Your task to perform on an android device: open app "Microsoft Authenticator" (install if not already installed) and enter user name: "Cornell@yahoo.com" and password: "bothersome" Image 0: 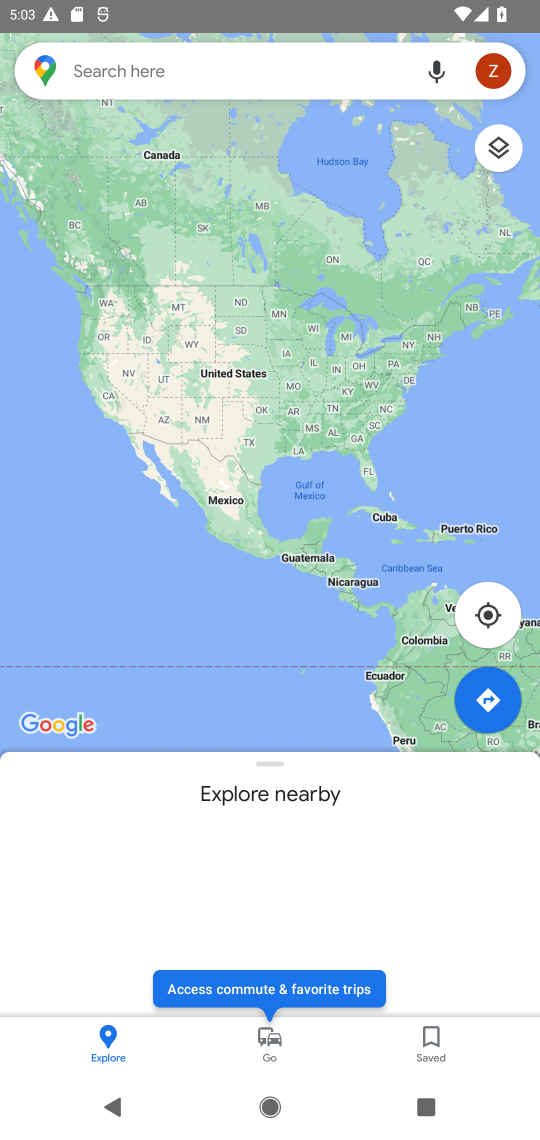
Step 0: press home button
Your task to perform on an android device: open app "Microsoft Authenticator" (install if not already installed) and enter user name: "Cornell@yahoo.com" and password: "bothersome" Image 1: 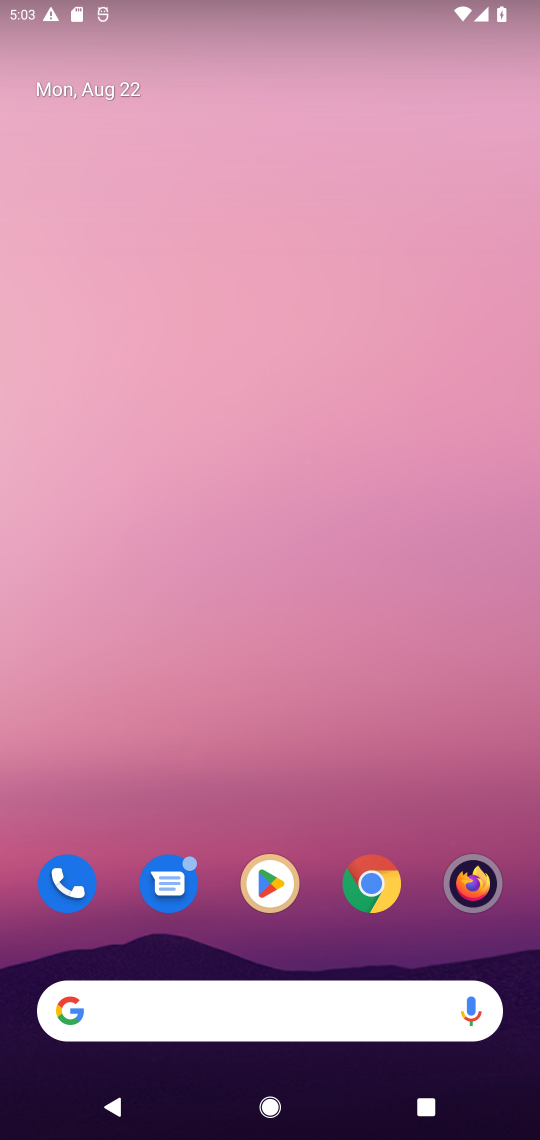
Step 1: drag from (245, 978) to (210, 389)
Your task to perform on an android device: open app "Microsoft Authenticator" (install if not already installed) and enter user name: "Cornell@yahoo.com" and password: "bothersome" Image 2: 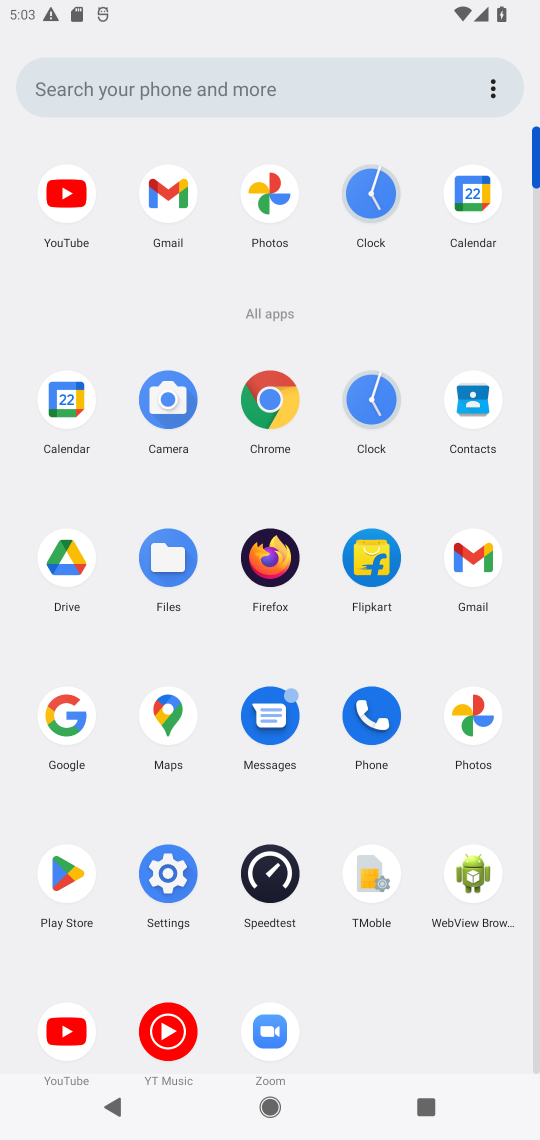
Step 2: click (66, 867)
Your task to perform on an android device: open app "Microsoft Authenticator" (install if not already installed) and enter user name: "Cornell@yahoo.com" and password: "bothersome" Image 3: 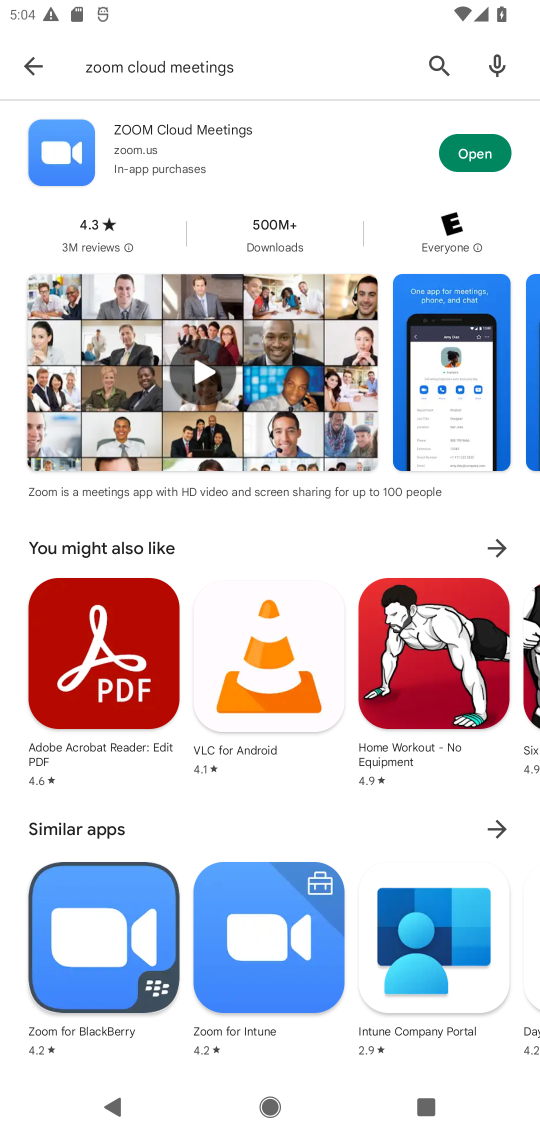
Step 3: click (429, 64)
Your task to perform on an android device: open app "Microsoft Authenticator" (install if not already installed) and enter user name: "Cornell@yahoo.com" and password: "bothersome" Image 4: 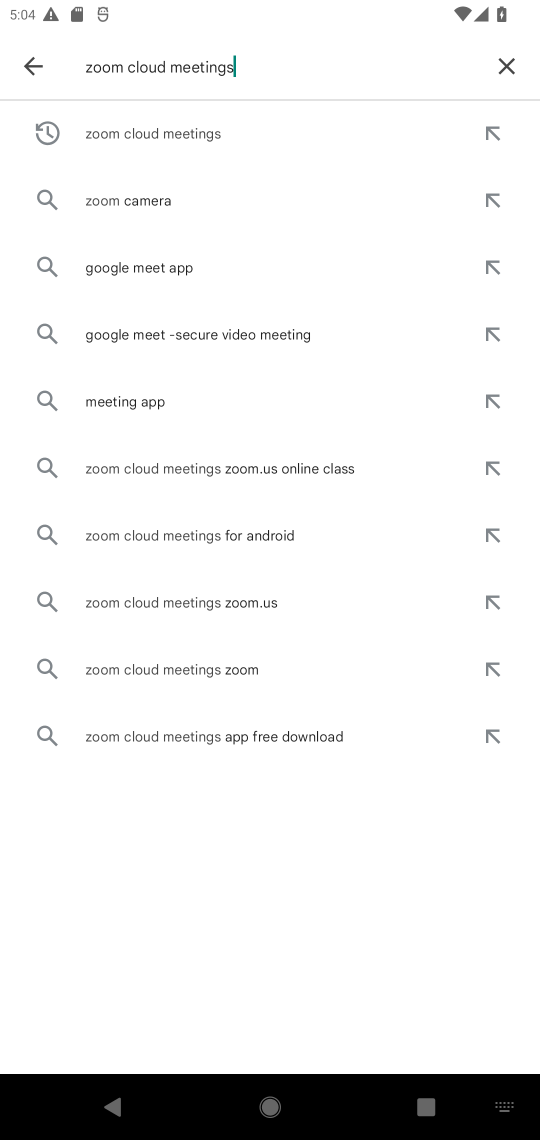
Step 4: click (507, 71)
Your task to perform on an android device: open app "Microsoft Authenticator" (install if not already installed) and enter user name: "Cornell@yahoo.com" and password: "bothersome" Image 5: 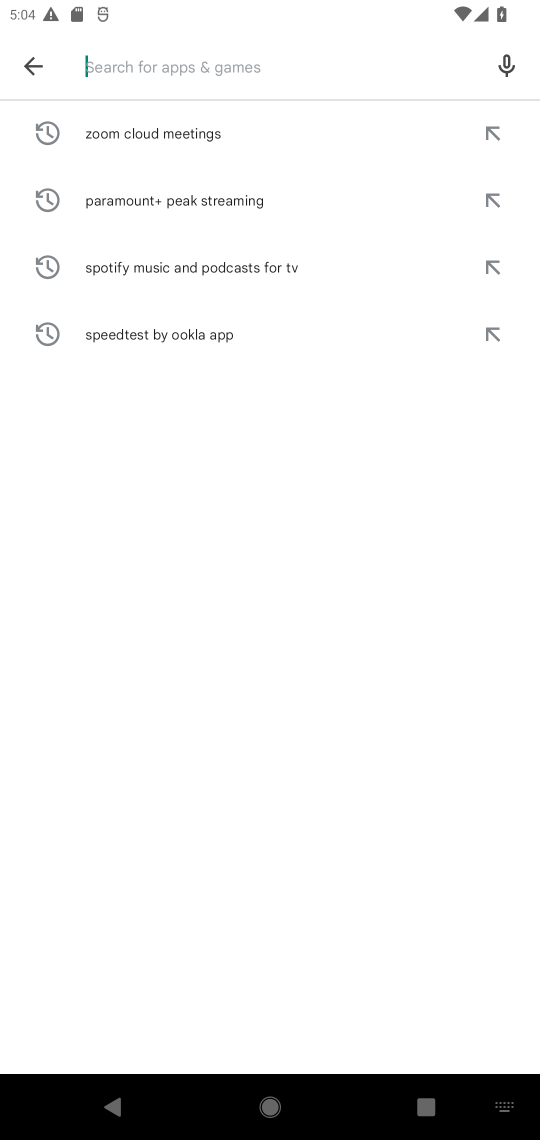
Step 5: type "Microsoft Authenticator"
Your task to perform on an android device: open app "Microsoft Authenticator" (install if not already installed) and enter user name: "Cornell@yahoo.com" and password: "bothersome" Image 6: 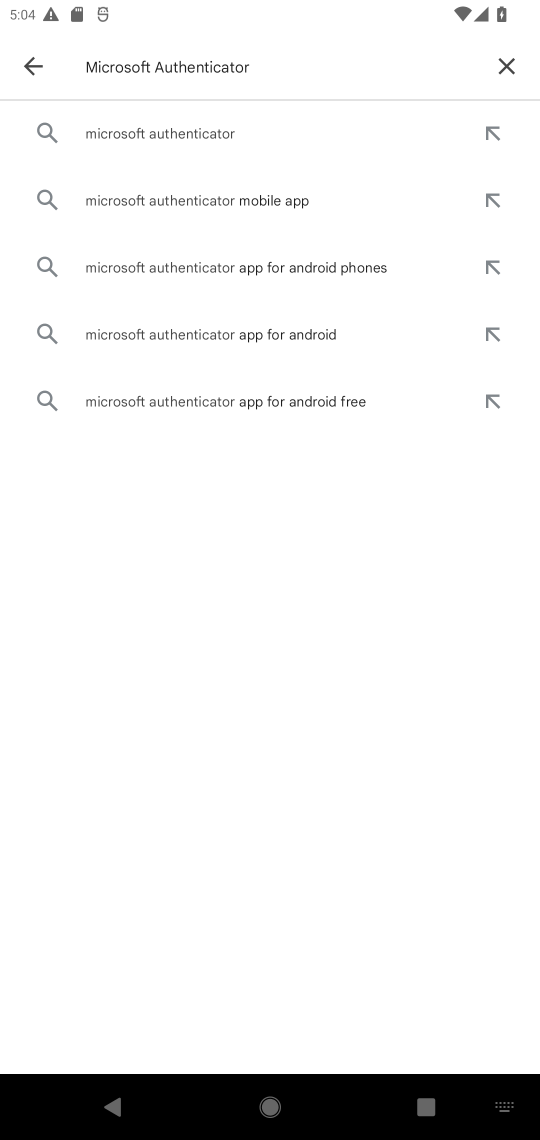
Step 6: click (156, 121)
Your task to perform on an android device: open app "Microsoft Authenticator" (install if not already installed) and enter user name: "Cornell@yahoo.com" and password: "bothersome" Image 7: 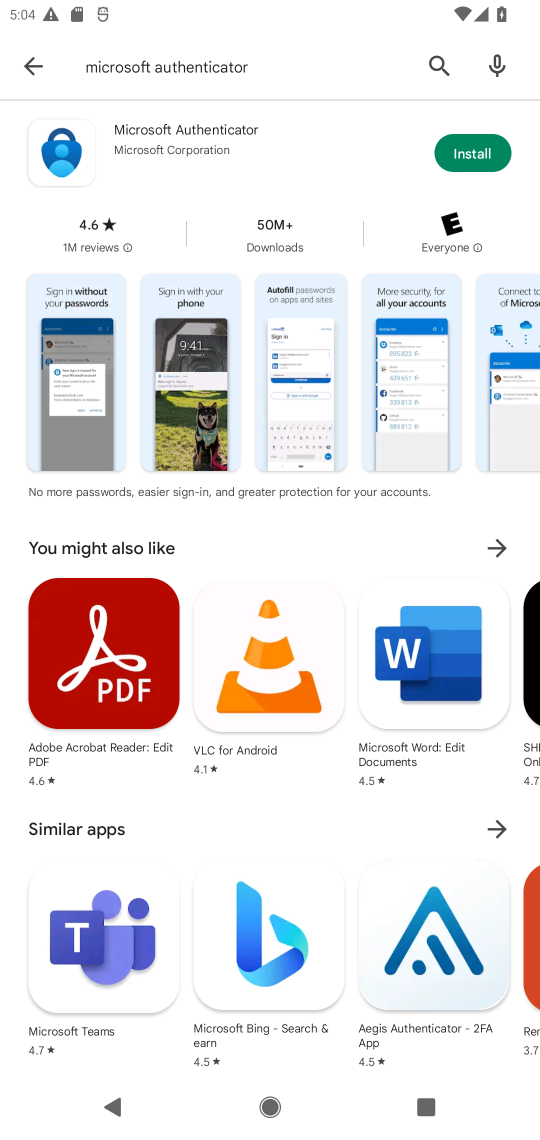
Step 7: click (492, 160)
Your task to perform on an android device: open app "Microsoft Authenticator" (install if not already installed) and enter user name: "Cornell@yahoo.com" and password: "bothersome" Image 8: 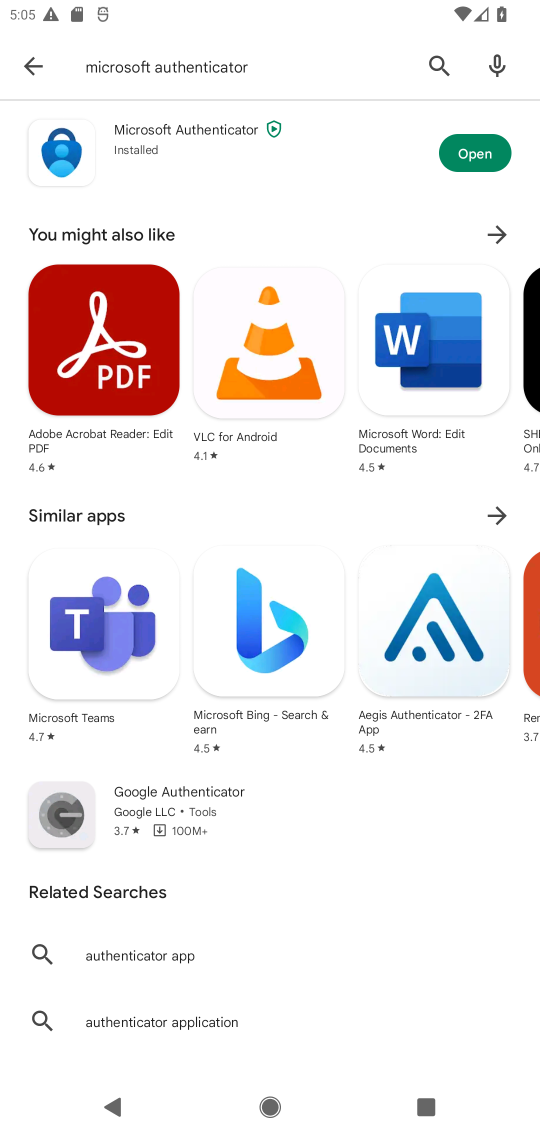
Step 8: click (477, 146)
Your task to perform on an android device: open app "Microsoft Authenticator" (install if not already installed) and enter user name: "Cornell@yahoo.com" and password: "bothersome" Image 9: 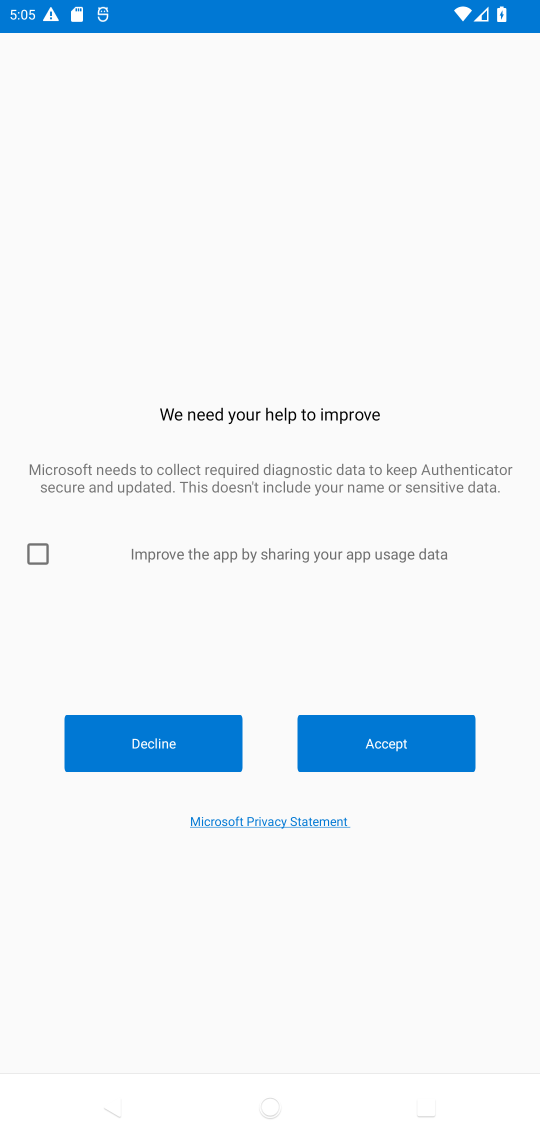
Step 9: task complete